Your task to perform on an android device: Open Yahoo.com Image 0: 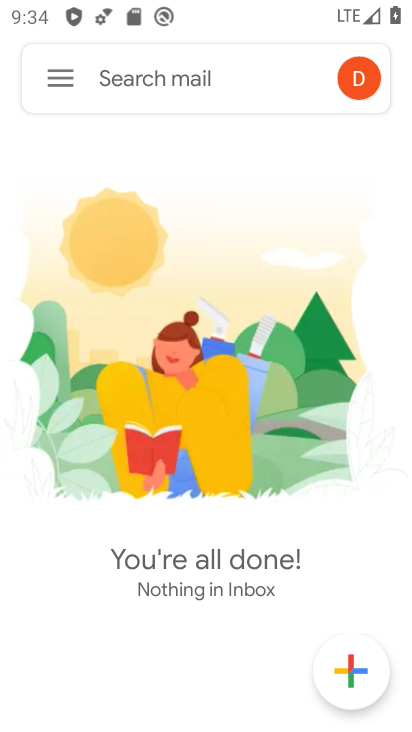
Step 0: press home button
Your task to perform on an android device: Open Yahoo.com Image 1: 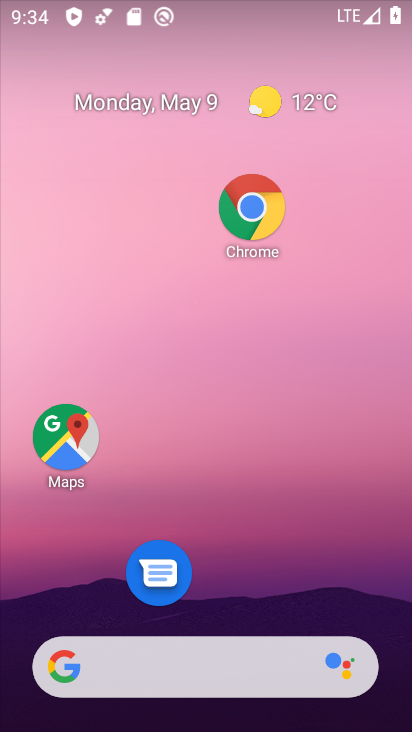
Step 1: click (232, 238)
Your task to perform on an android device: Open Yahoo.com Image 2: 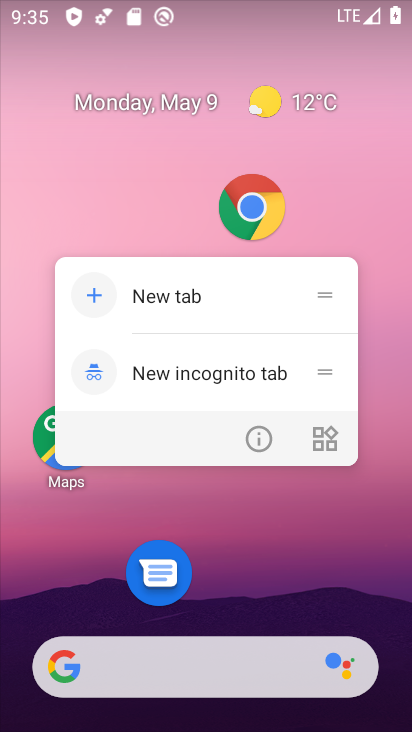
Step 2: click (232, 239)
Your task to perform on an android device: Open Yahoo.com Image 3: 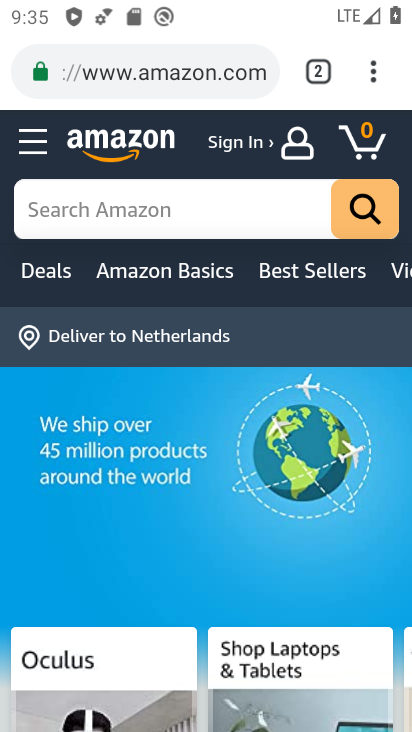
Step 3: click (258, 84)
Your task to perform on an android device: Open Yahoo.com Image 4: 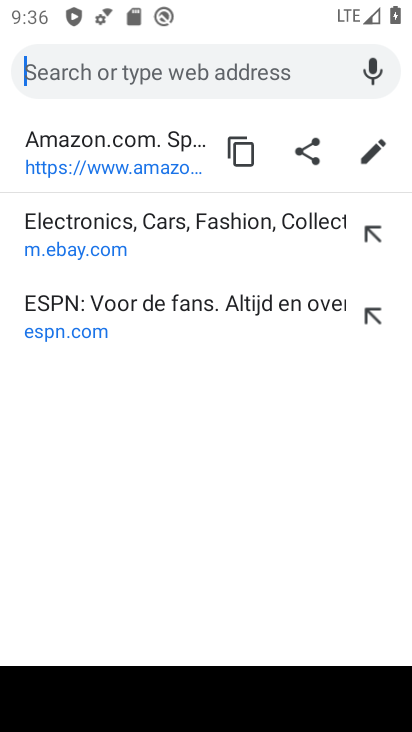
Step 4: type "yahoo.com"
Your task to perform on an android device: Open Yahoo.com Image 5: 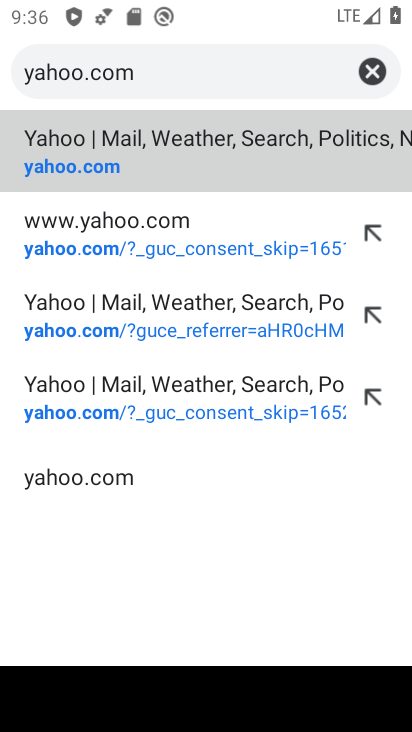
Step 5: click (303, 173)
Your task to perform on an android device: Open Yahoo.com Image 6: 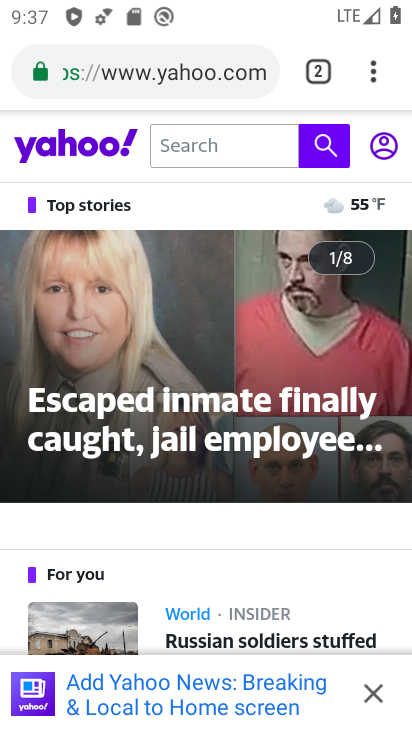
Step 6: task complete